Your task to perform on an android device: delete the emails in spam in the gmail app Image 0: 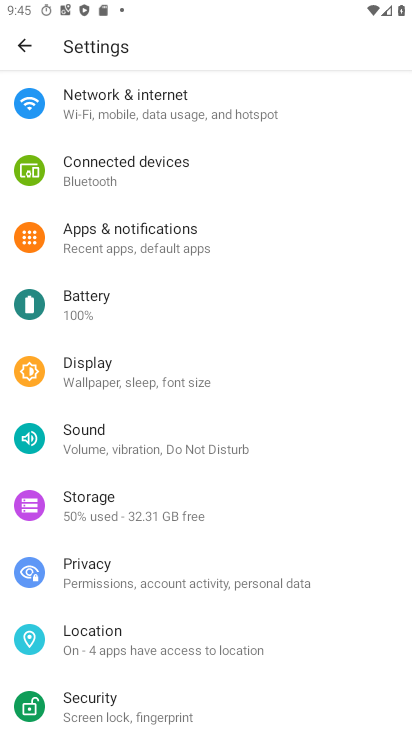
Step 0: press home button
Your task to perform on an android device: delete the emails in spam in the gmail app Image 1: 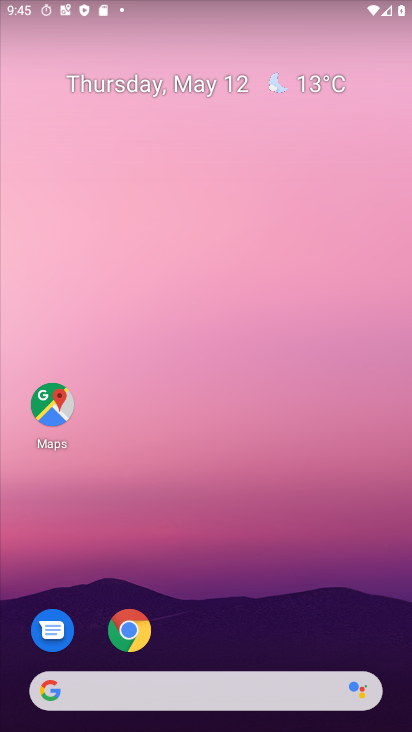
Step 1: drag from (179, 685) to (153, 157)
Your task to perform on an android device: delete the emails in spam in the gmail app Image 2: 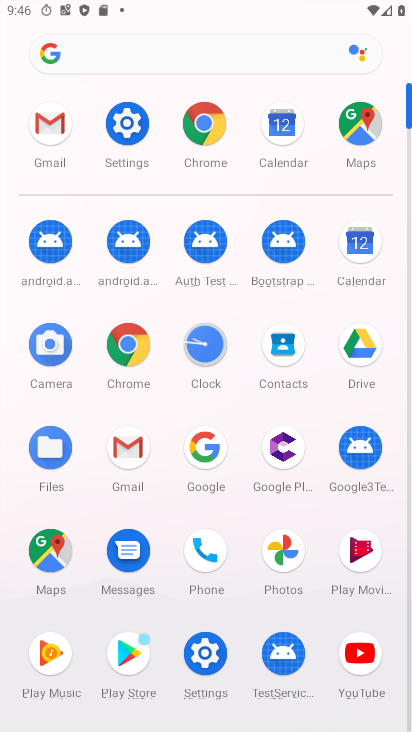
Step 2: click (127, 445)
Your task to perform on an android device: delete the emails in spam in the gmail app Image 3: 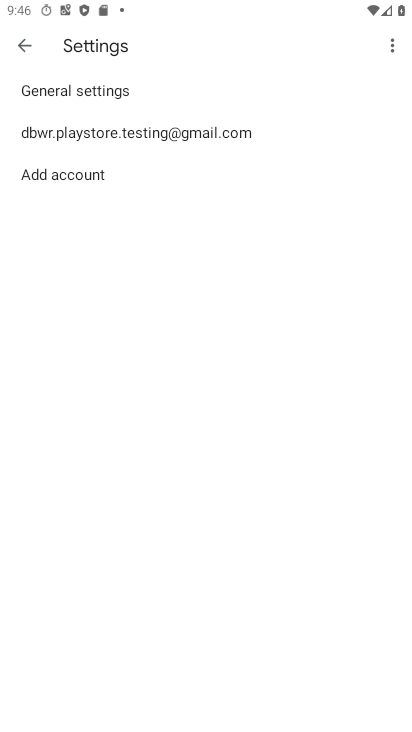
Step 3: click (12, 47)
Your task to perform on an android device: delete the emails in spam in the gmail app Image 4: 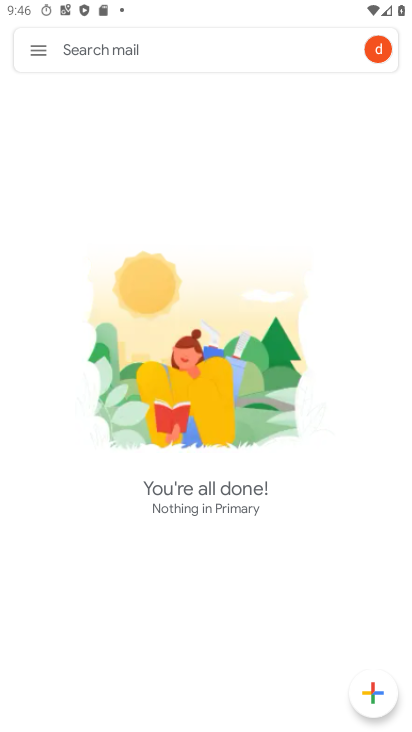
Step 4: click (35, 45)
Your task to perform on an android device: delete the emails in spam in the gmail app Image 5: 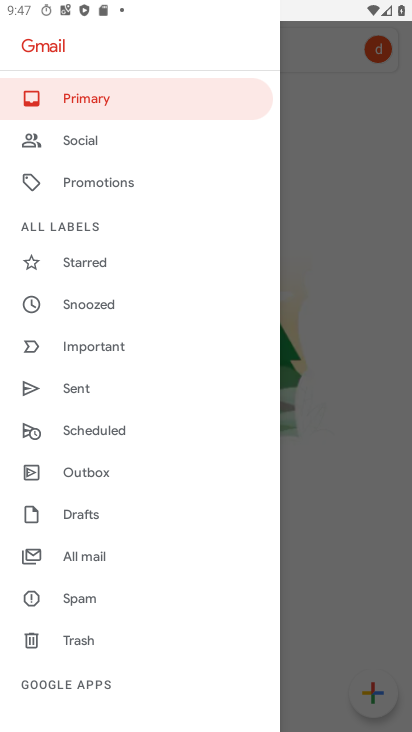
Step 5: click (86, 593)
Your task to perform on an android device: delete the emails in spam in the gmail app Image 6: 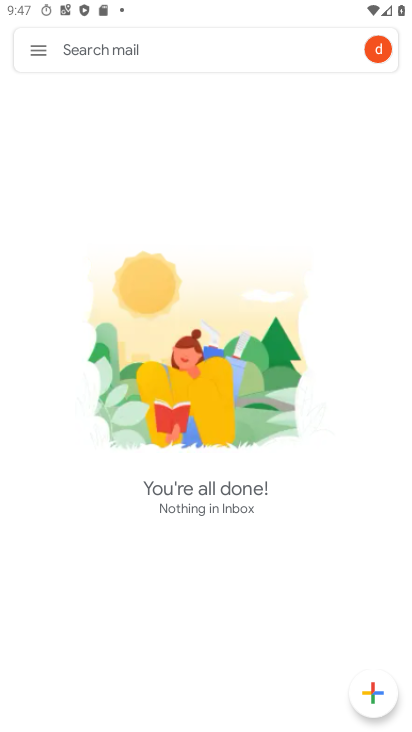
Step 6: task complete